Your task to perform on an android device: find photos in the google photos app Image 0: 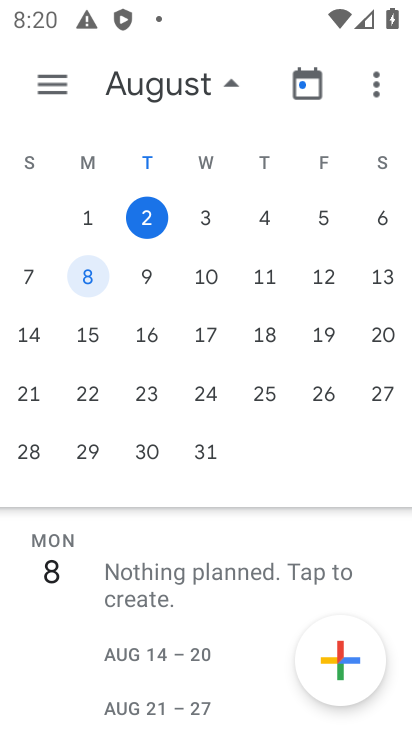
Step 0: press home button
Your task to perform on an android device: find photos in the google photos app Image 1: 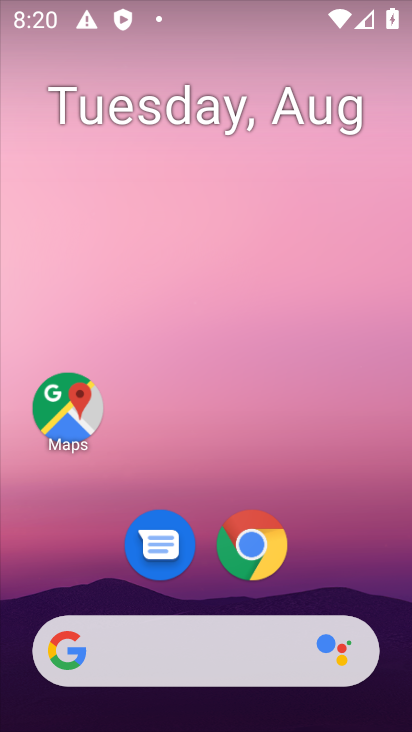
Step 1: drag from (22, 585) to (215, 61)
Your task to perform on an android device: find photos in the google photos app Image 2: 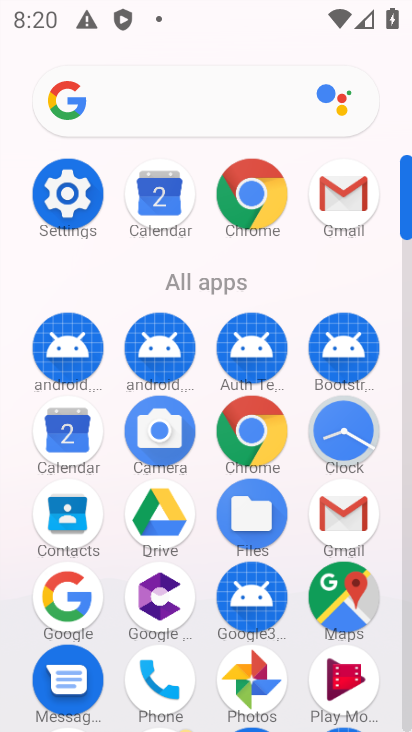
Step 2: click (239, 660)
Your task to perform on an android device: find photos in the google photos app Image 3: 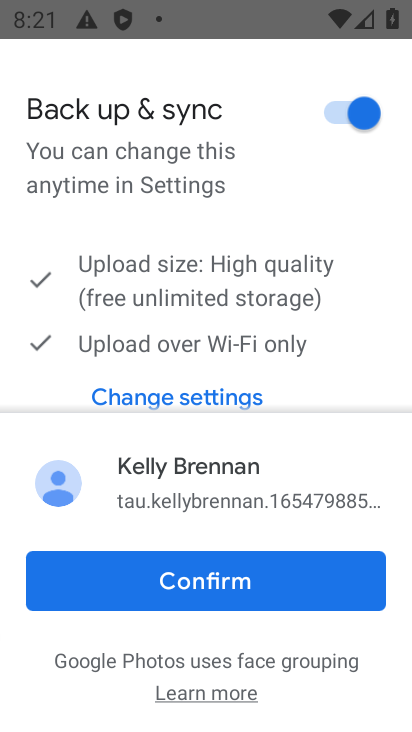
Step 3: click (214, 587)
Your task to perform on an android device: find photos in the google photos app Image 4: 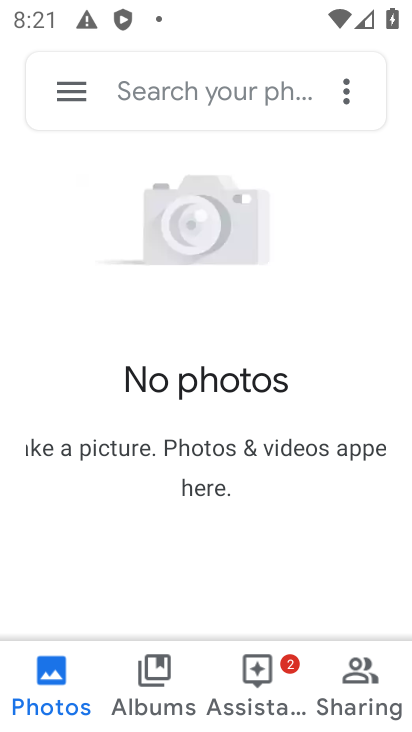
Step 4: task complete